Your task to perform on an android device: turn off javascript in the chrome app Image 0: 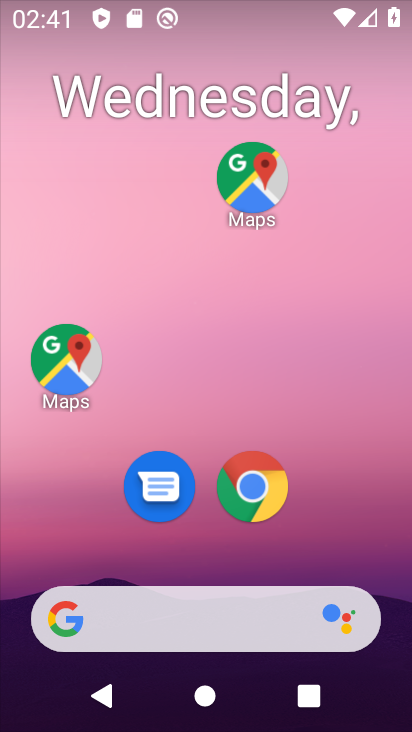
Step 0: click (253, 497)
Your task to perform on an android device: turn off javascript in the chrome app Image 1: 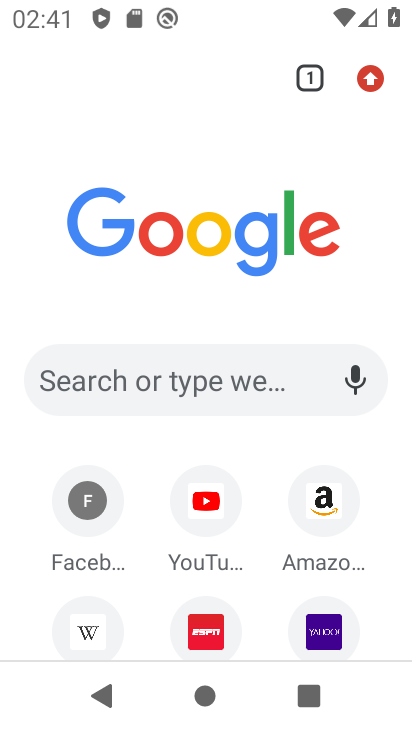
Step 1: click (365, 87)
Your task to perform on an android device: turn off javascript in the chrome app Image 2: 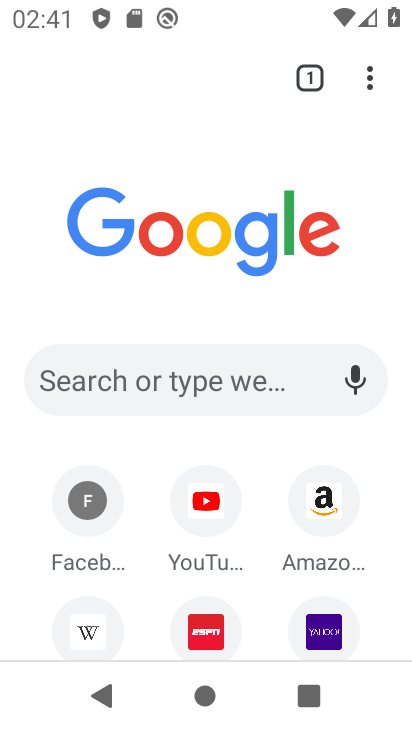
Step 2: click (371, 77)
Your task to perform on an android device: turn off javascript in the chrome app Image 3: 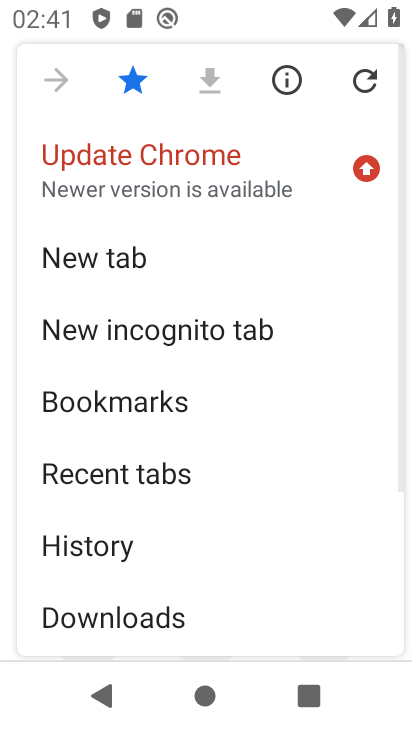
Step 3: drag from (250, 543) to (219, 228)
Your task to perform on an android device: turn off javascript in the chrome app Image 4: 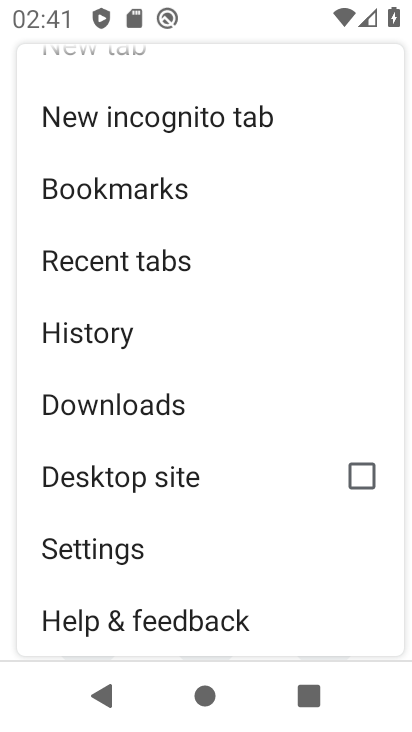
Step 4: click (108, 553)
Your task to perform on an android device: turn off javascript in the chrome app Image 5: 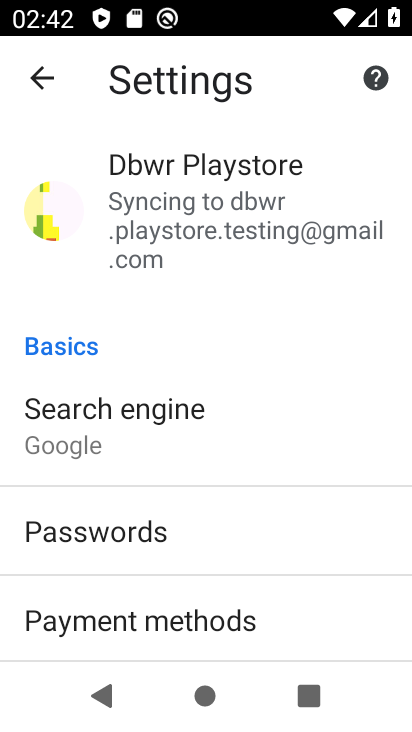
Step 5: drag from (162, 598) to (143, 137)
Your task to perform on an android device: turn off javascript in the chrome app Image 6: 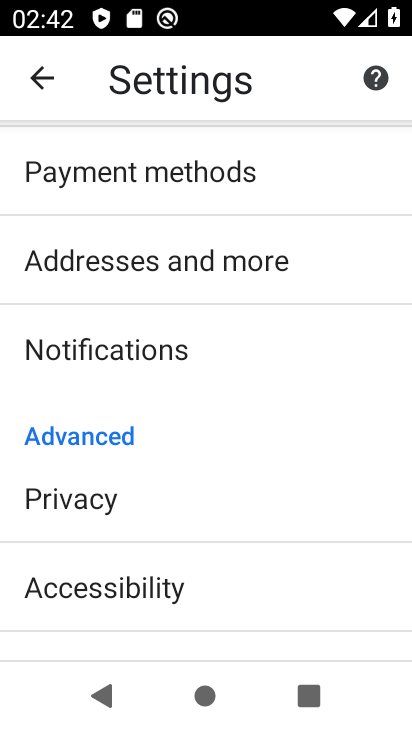
Step 6: drag from (128, 564) to (63, 92)
Your task to perform on an android device: turn off javascript in the chrome app Image 7: 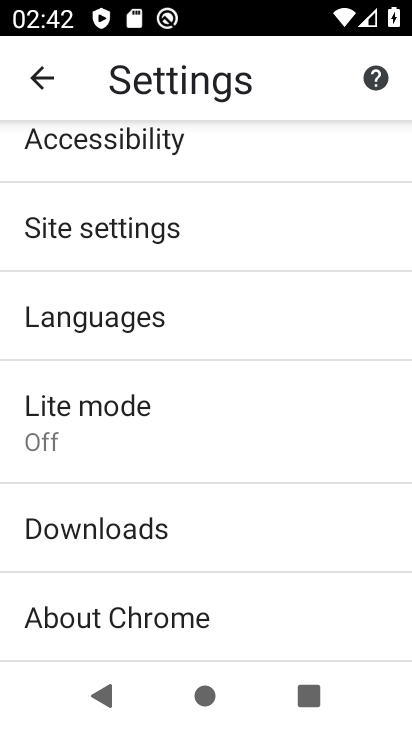
Step 7: click (123, 231)
Your task to perform on an android device: turn off javascript in the chrome app Image 8: 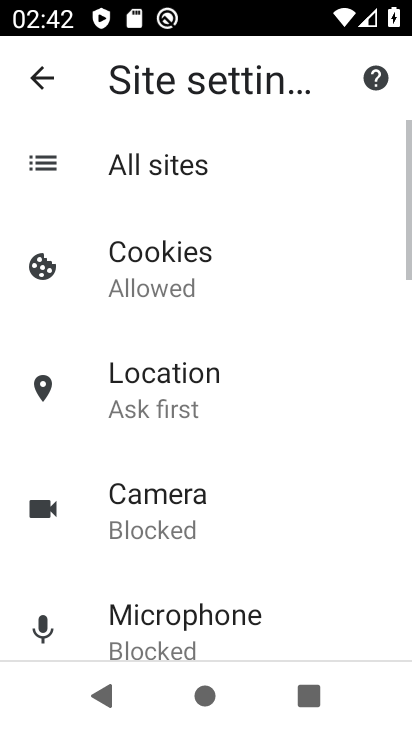
Step 8: drag from (172, 514) to (178, 90)
Your task to perform on an android device: turn off javascript in the chrome app Image 9: 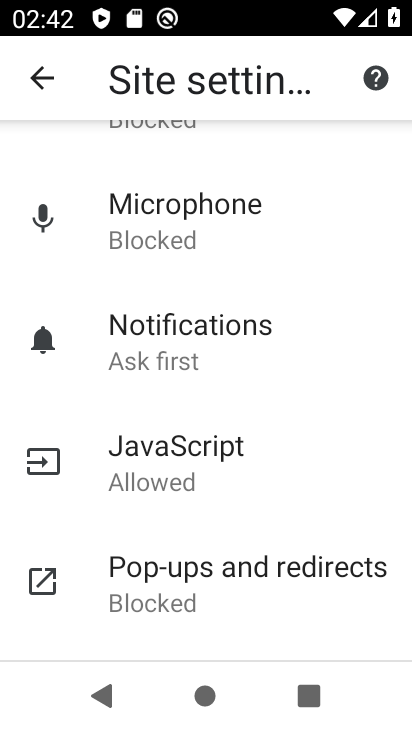
Step 9: click (171, 464)
Your task to perform on an android device: turn off javascript in the chrome app Image 10: 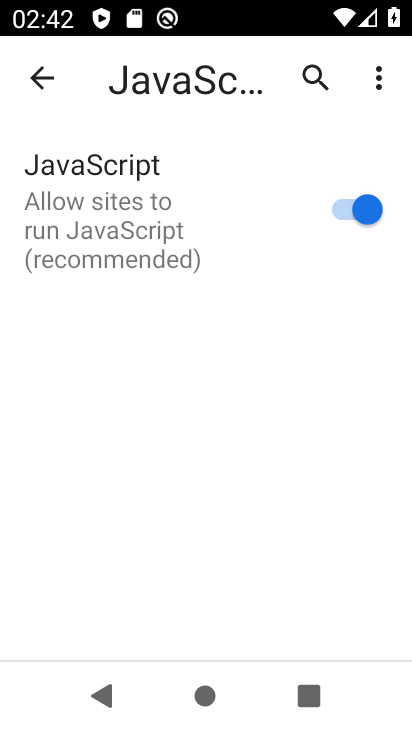
Step 10: click (330, 215)
Your task to perform on an android device: turn off javascript in the chrome app Image 11: 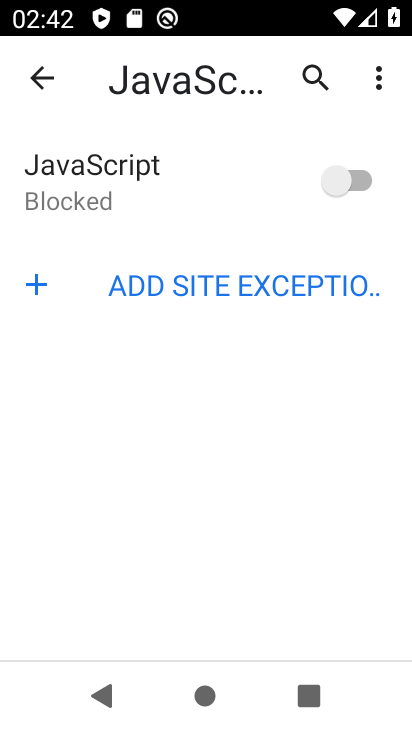
Step 11: task complete